Your task to perform on an android device: turn smart compose on in the gmail app Image 0: 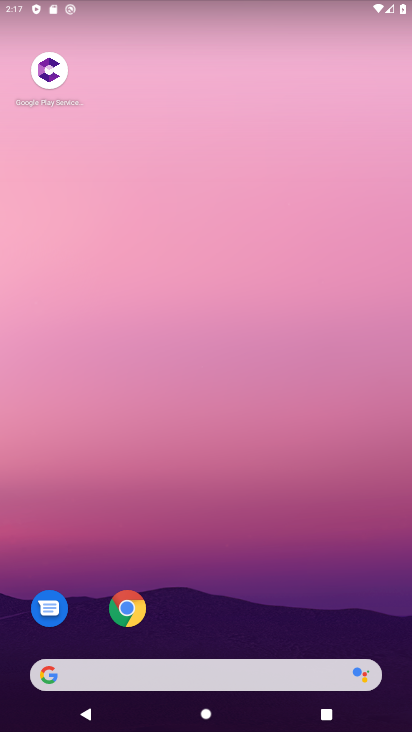
Step 0: click (190, 282)
Your task to perform on an android device: turn smart compose on in the gmail app Image 1: 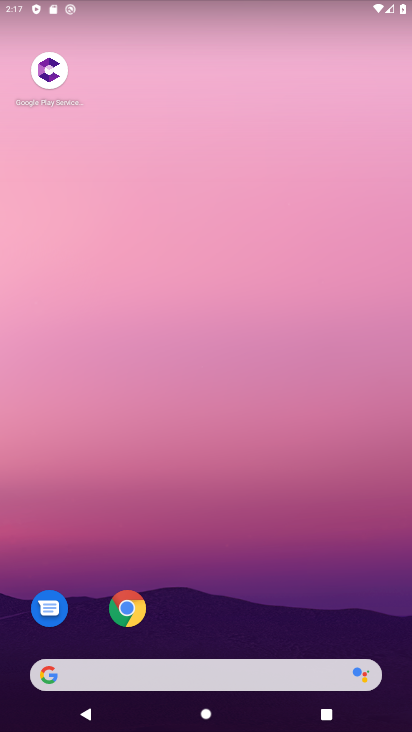
Step 1: drag from (181, 624) to (188, 151)
Your task to perform on an android device: turn smart compose on in the gmail app Image 2: 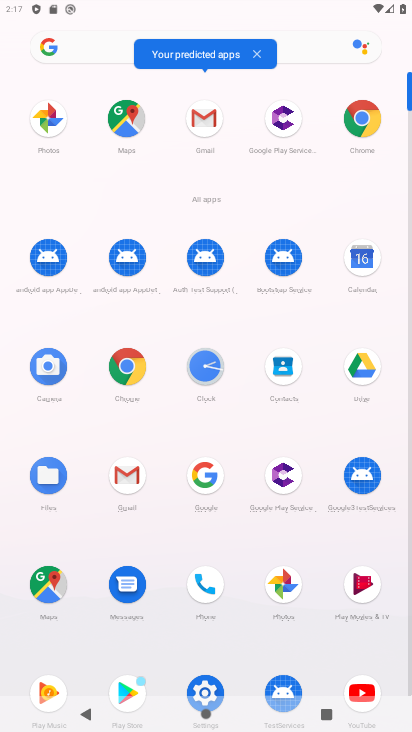
Step 2: click (203, 118)
Your task to perform on an android device: turn smart compose on in the gmail app Image 3: 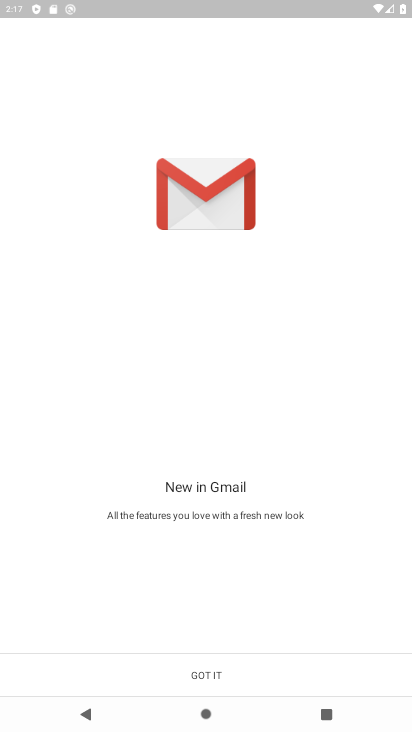
Step 3: click (201, 681)
Your task to perform on an android device: turn smart compose on in the gmail app Image 4: 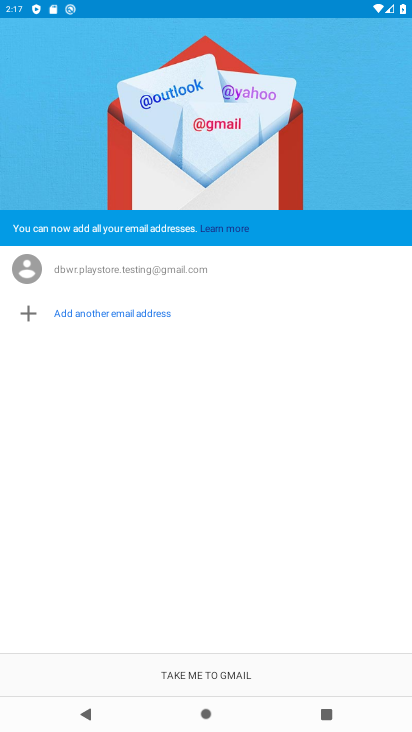
Step 4: click (205, 675)
Your task to perform on an android device: turn smart compose on in the gmail app Image 5: 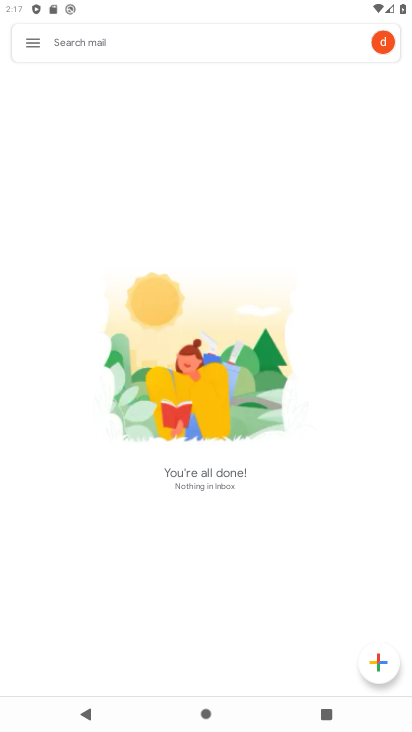
Step 5: click (28, 46)
Your task to perform on an android device: turn smart compose on in the gmail app Image 6: 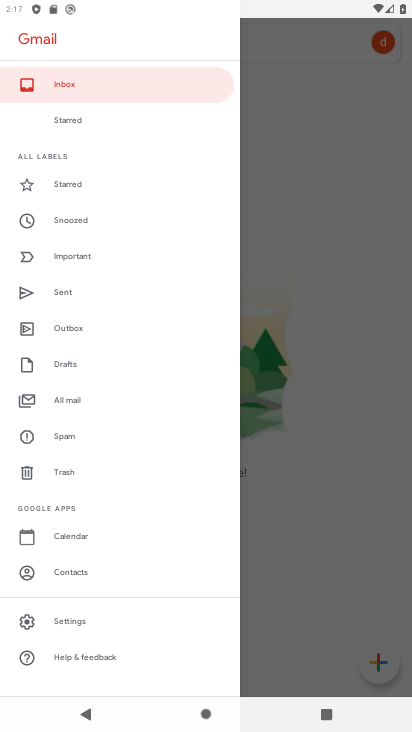
Step 6: click (87, 628)
Your task to perform on an android device: turn smart compose on in the gmail app Image 7: 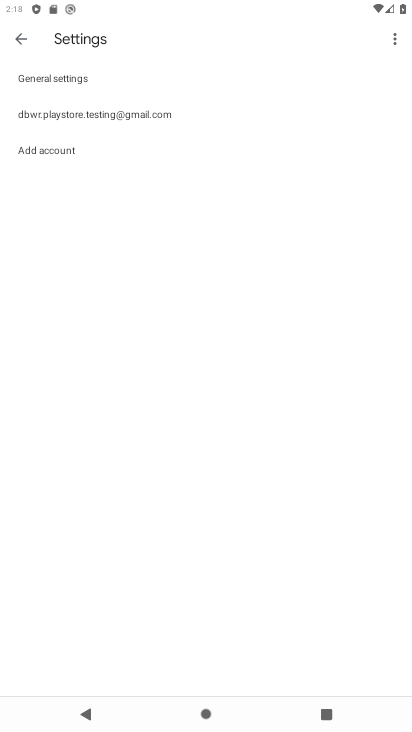
Step 7: click (125, 122)
Your task to perform on an android device: turn smart compose on in the gmail app Image 8: 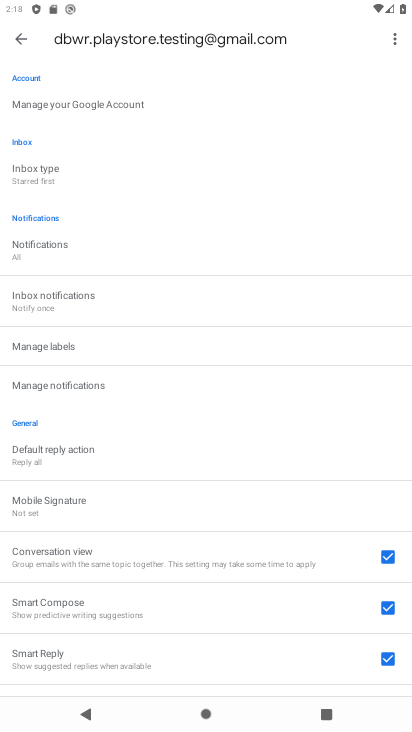
Step 8: task complete